Your task to perform on an android device: turn off location Image 0: 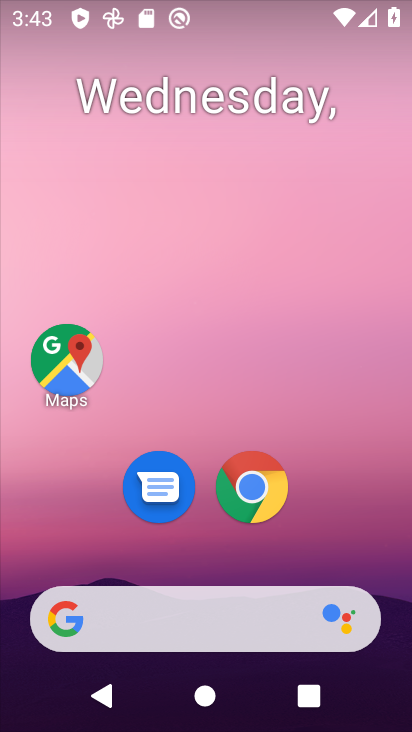
Step 0: drag from (359, 537) to (367, 265)
Your task to perform on an android device: turn off location Image 1: 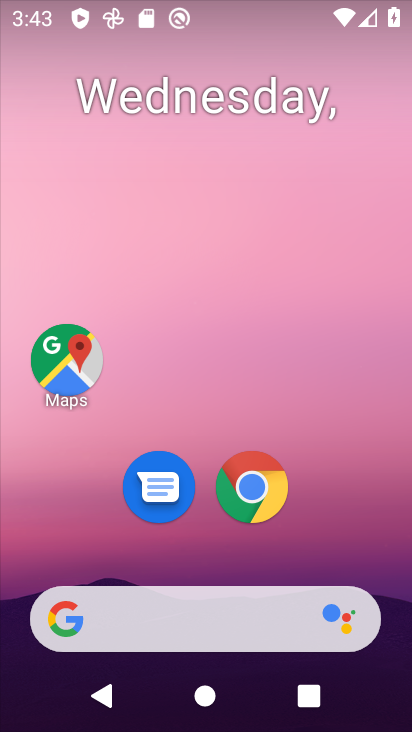
Step 1: drag from (382, 521) to (366, 140)
Your task to perform on an android device: turn off location Image 2: 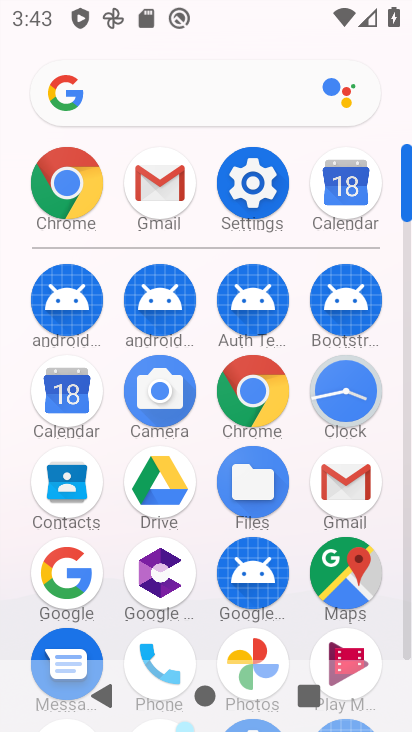
Step 2: click (273, 216)
Your task to perform on an android device: turn off location Image 3: 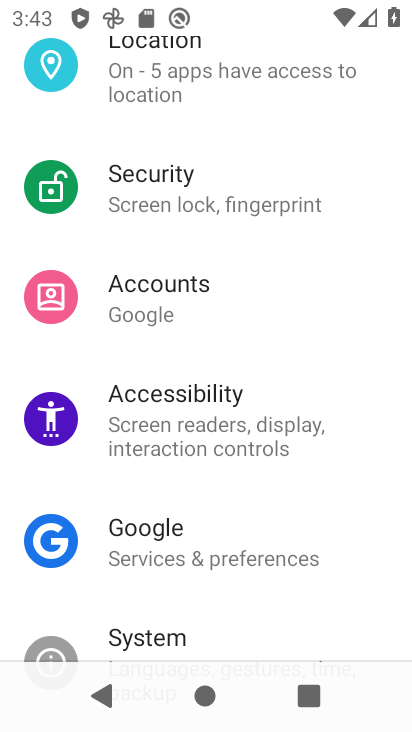
Step 3: drag from (365, 303) to (372, 368)
Your task to perform on an android device: turn off location Image 4: 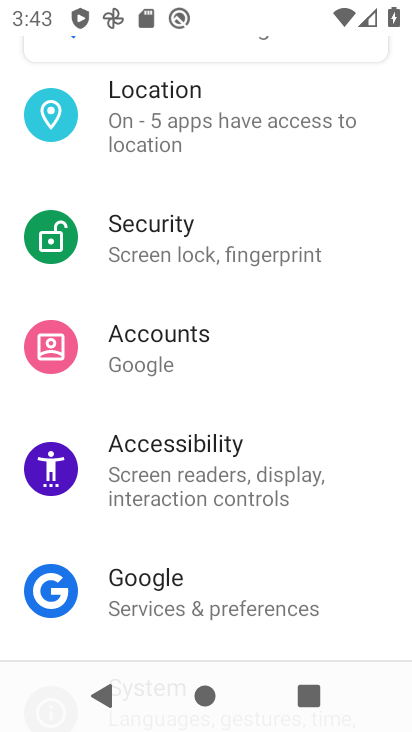
Step 4: drag from (364, 295) to (343, 376)
Your task to perform on an android device: turn off location Image 5: 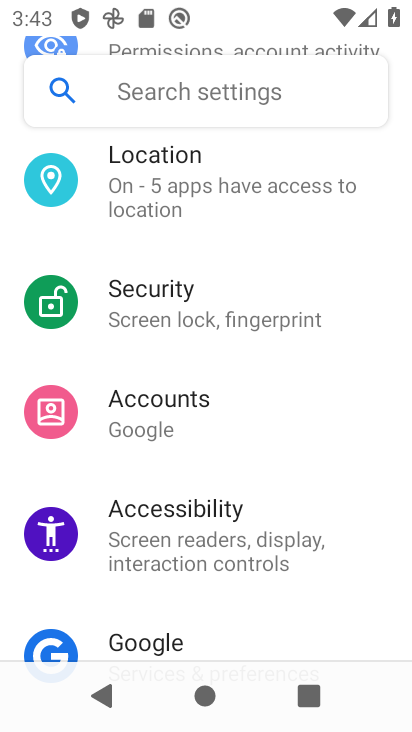
Step 5: drag from (345, 280) to (343, 361)
Your task to perform on an android device: turn off location Image 6: 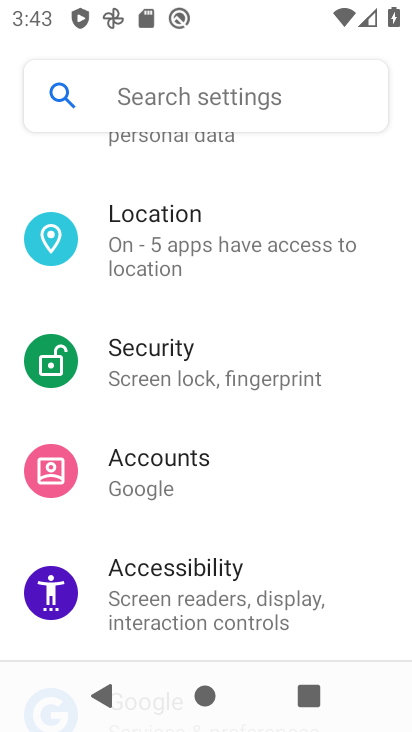
Step 6: drag from (356, 274) to (350, 372)
Your task to perform on an android device: turn off location Image 7: 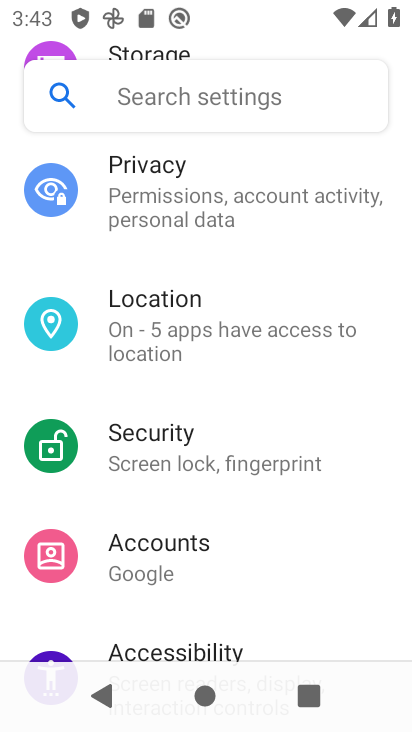
Step 7: drag from (369, 289) to (377, 356)
Your task to perform on an android device: turn off location Image 8: 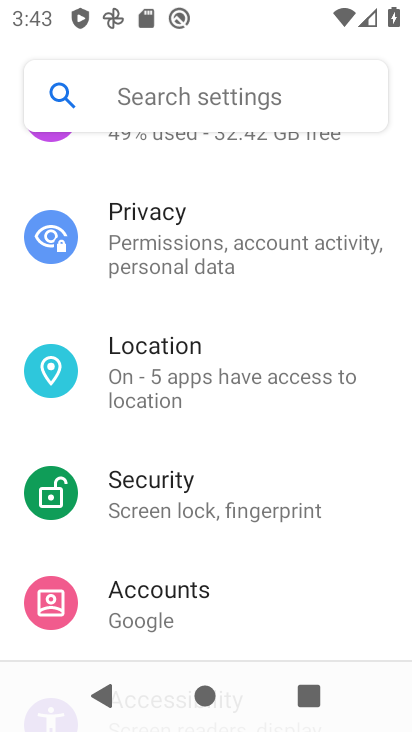
Step 8: drag from (376, 306) to (362, 449)
Your task to perform on an android device: turn off location Image 9: 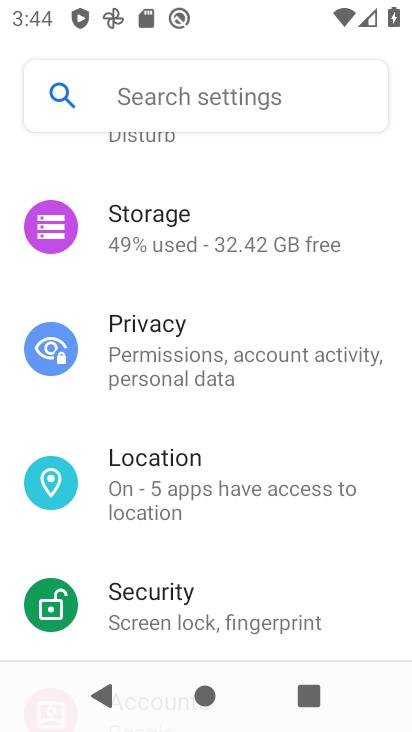
Step 9: drag from (349, 280) to (347, 441)
Your task to perform on an android device: turn off location Image 10: 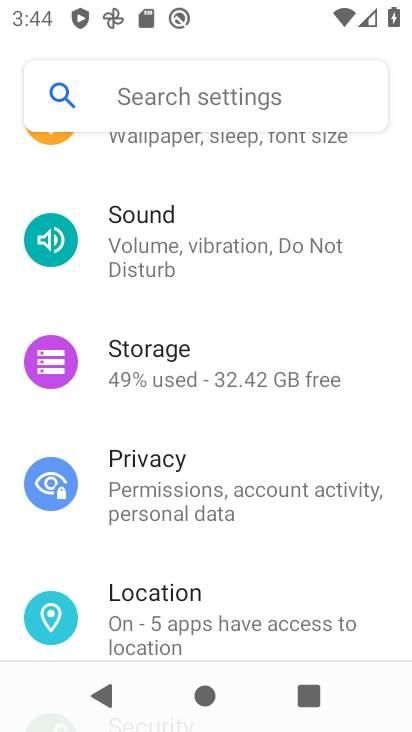
Step 10: drag from (349, 299) to (351, 419)
Your task to perform on an android device: turn off location Image 11: 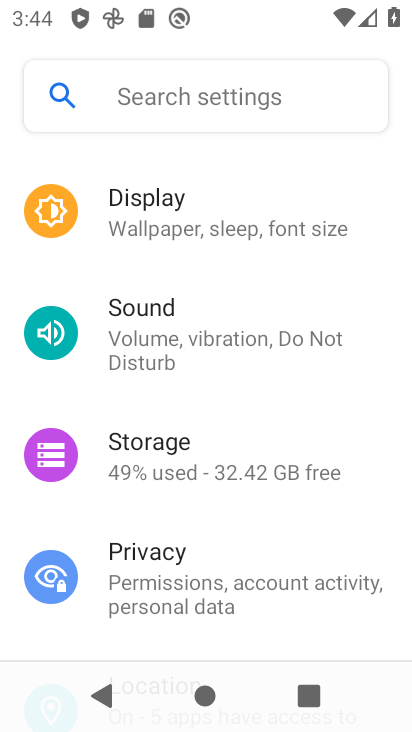
Step 11: drag from (371, 275) to (362, 393)
Your task to perform on an android device: turn off location Image 12: 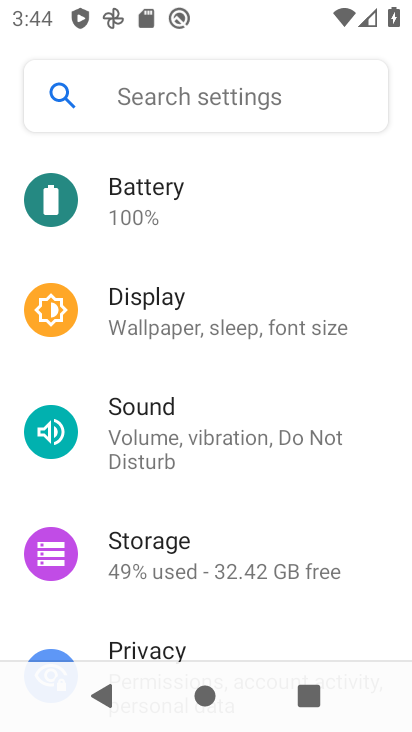
Step 12: drag from (360, 276) to (356, 392)
Your task to perform on an android device: turn off location Image 13: 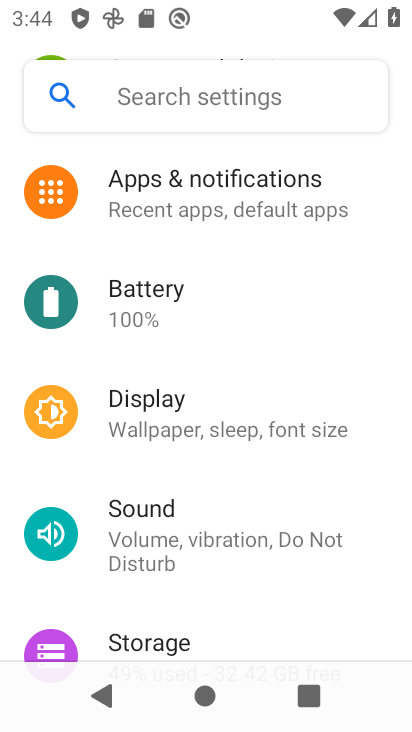
Step 13: drag from (359, 250) to (360, 351)
Your task to perform on an android device: turn off location Image 14: 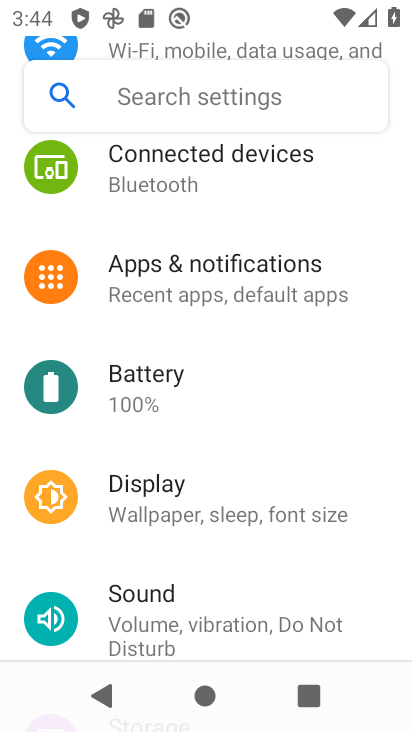
Step 14: drag from (366, 223) to (366, 384)
Your task to perform on an android device: turn off location Image 15: 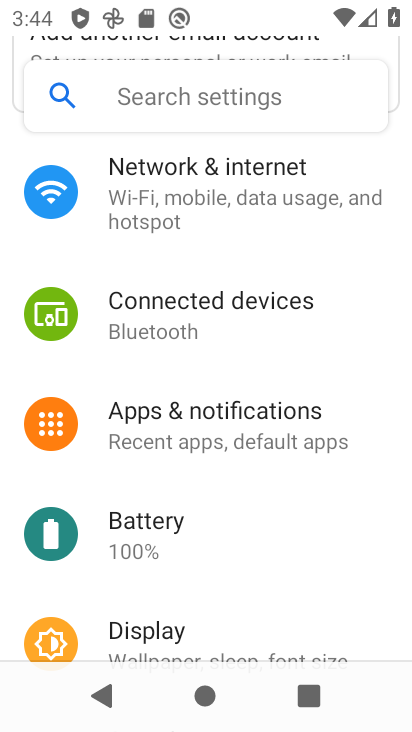
Step 15: drag from (362, 250) to (348, 398)
Your task to perform on an android device: turn off location Image 16: 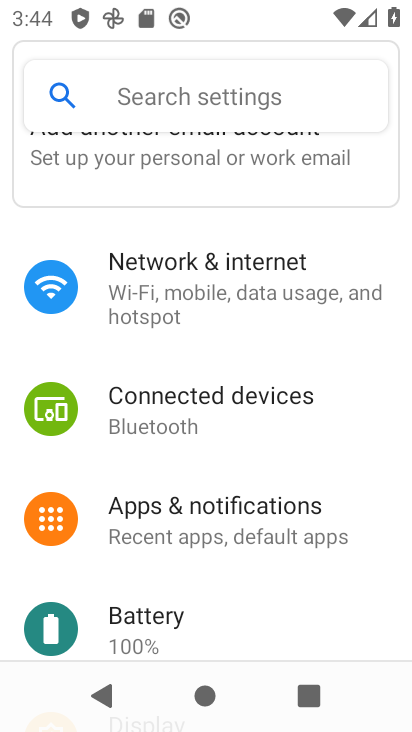
Step 16: drag from (349, 443) to (358, 291)
Your task to perform on an android device: turn off location Image 17: 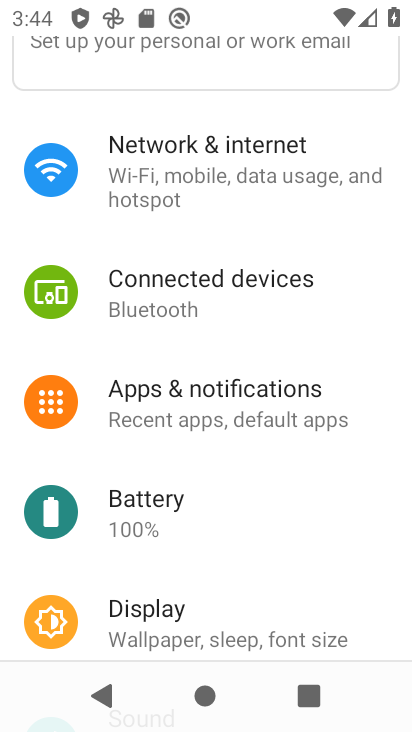
Step 17: drag from (346, 479) to (352, 397)
Your task to perform on an android device: turn off location Image 18: 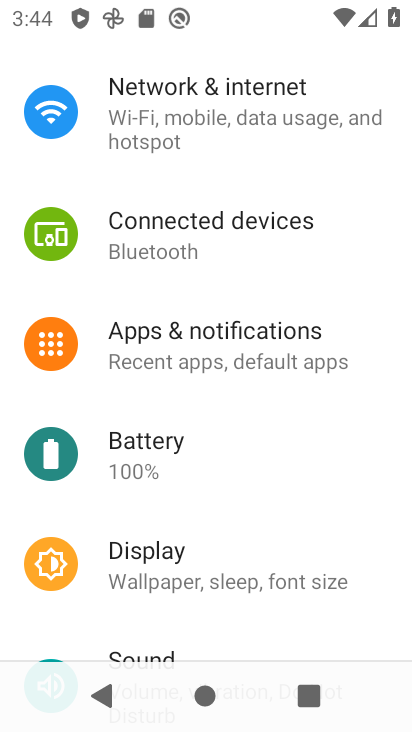
Step 18: drag from (333, 472) to (343, 397)
Your task to perform on an android device: turn off location Image 19: 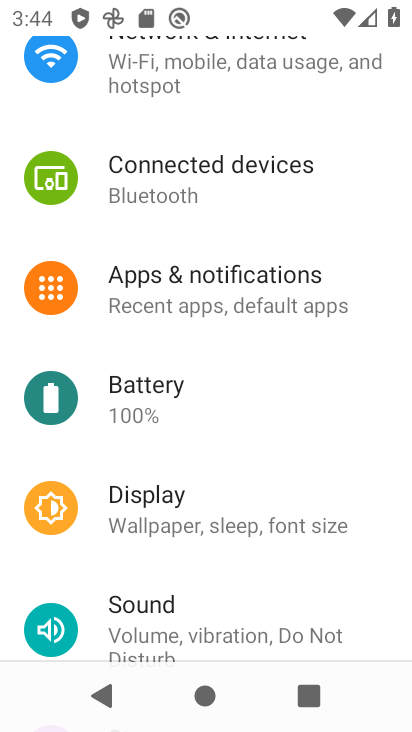
Step 19: drag from (333, 528) to (336, 426)
Your task to perform on an android device: turn off location Image 20: 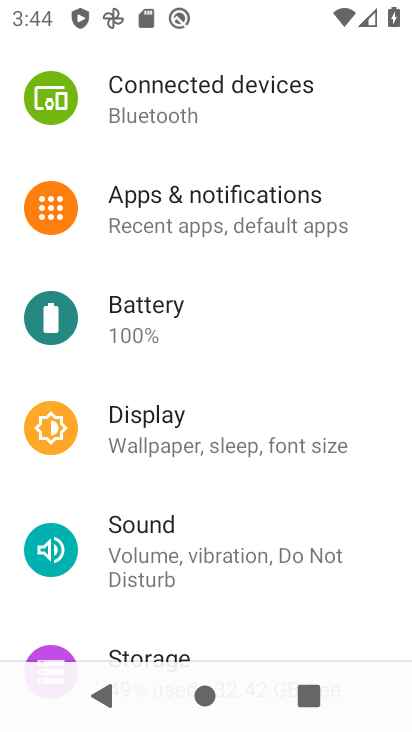
Step 20: drag from (331, 499) to (335, 393)
Your task to perform on an android device: turn off location Image 21: 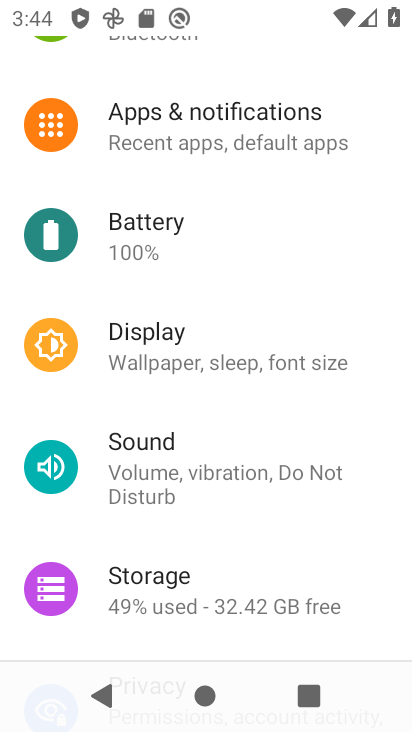
Step 21: drag from (329, 556) to (327, 476)
Your task to perform on an android device: turn off location Image 22: 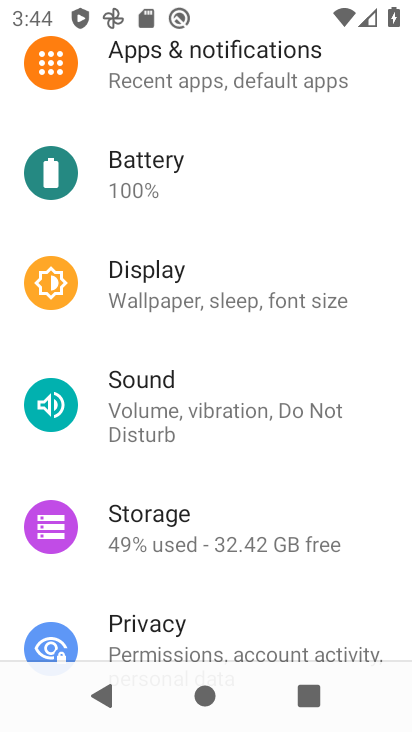
Step 22: drag from (330, 561) to (329, 467)
Your task to perform on an android device: turn off location Image 23: 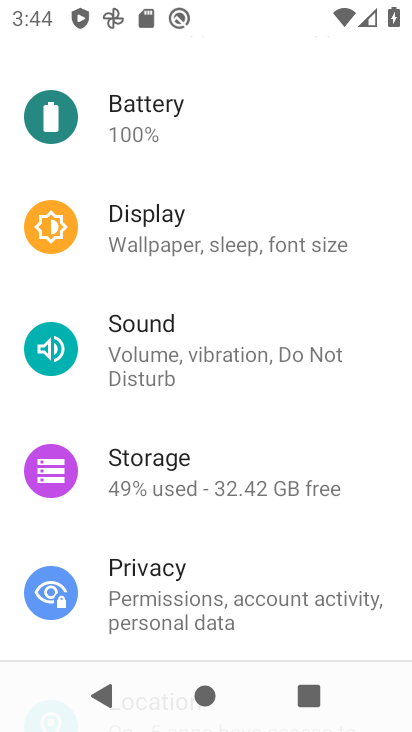
Step 23: drag from (328, 562) to (344, 450)
Your task to perform on an android device: turn off location Image 24: 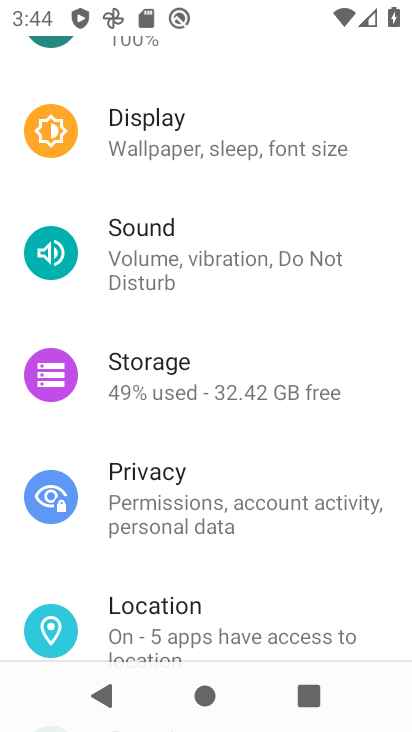
Step 24: drag from (327, 574) to (329, 490)
Your task to perform on an android device: turn off location Image 25: 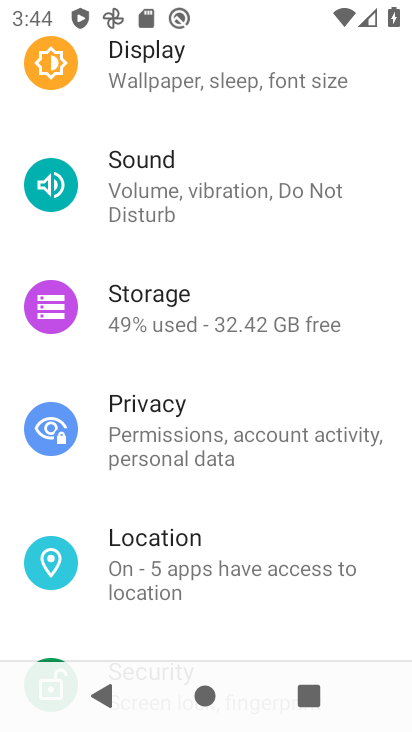
Step 25: click (295, 551)
Your task to perform on an android device: turn off location Image 26: 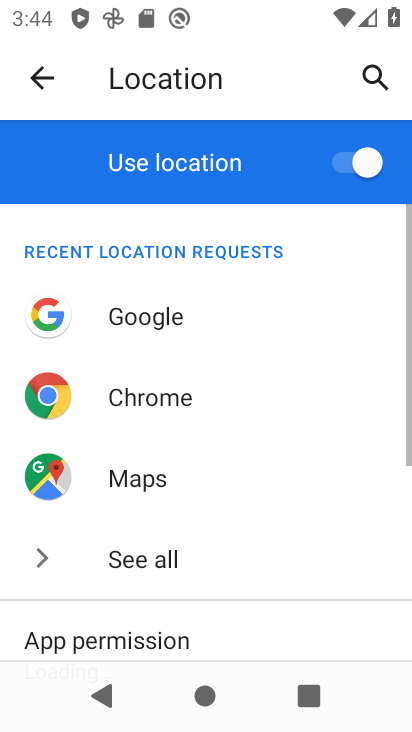
Step 26: click (377, 154)
Your task to perform on an android device: turn off location Image 27: 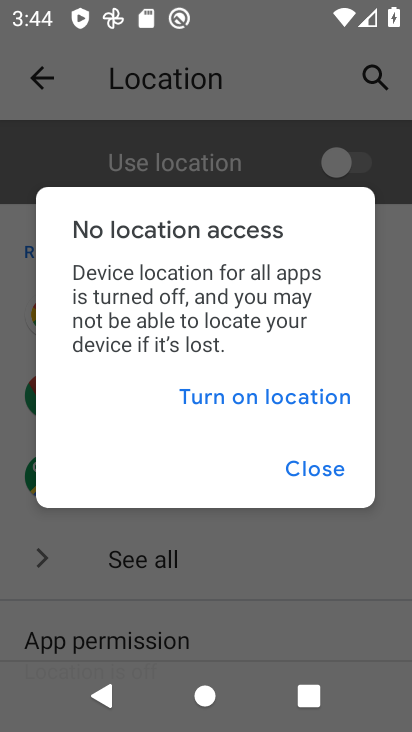
Step 27: task complete